Your task to perform on an android device: Open Android settings Image 0: 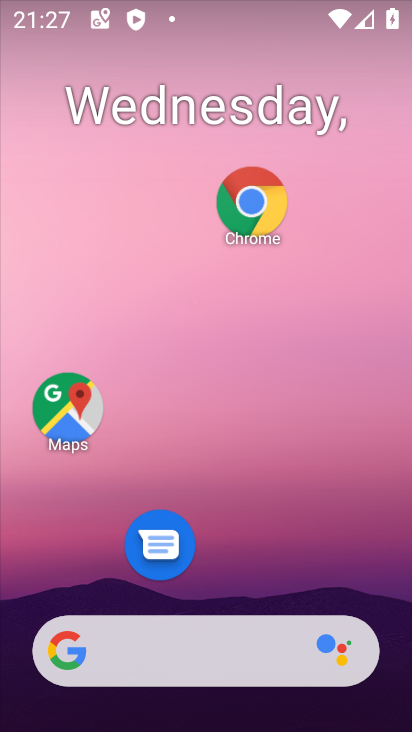
Step 0: drag from (231, 587) to (149, 196)
Your task to perform on an android device: Open Android settings Image 1: 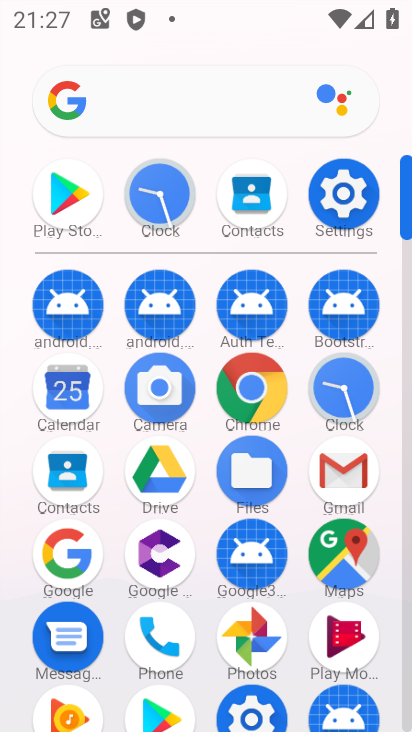
Step 1: click (335, 200)
Your task to perform on an android device: Open Android settings Image 2: 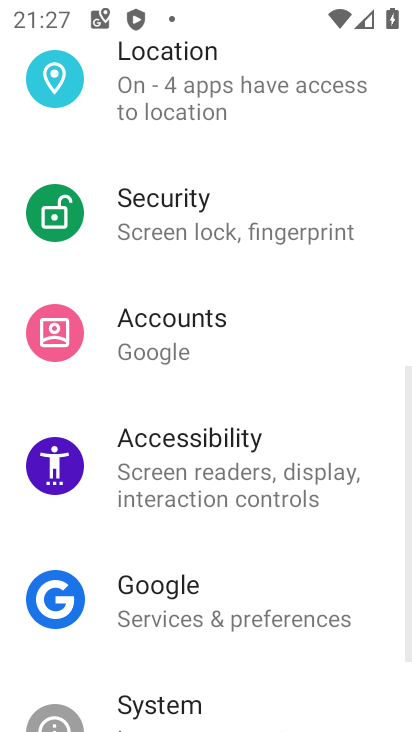
Step 2: click (335, 200)
Your task to perform on an android device: Open Android settings Image 3: 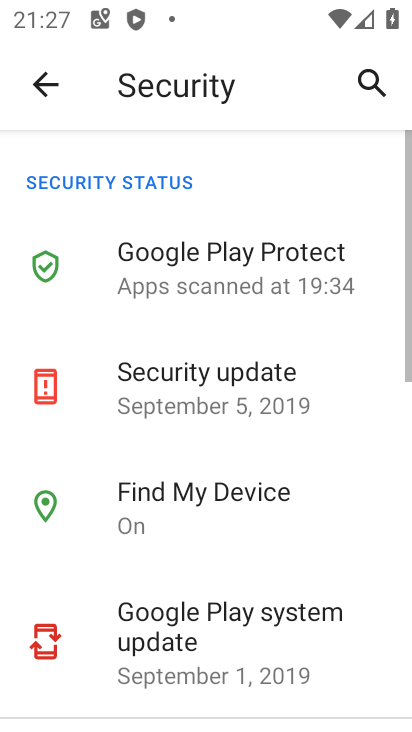
Step 3: task complete